Your task to perform on an android device: Open calendar and show me the first week of next month Image 0: 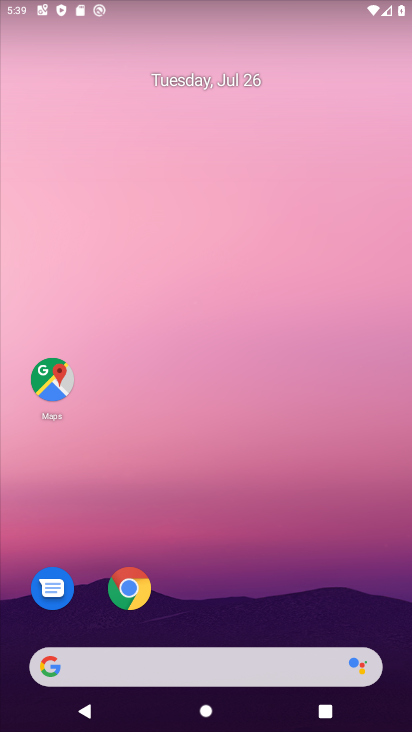
Step 0: drag from (201, 660) to (204, 229)
Your task to perform on an android device: Open calendar and show me the first week of next month Image 1: 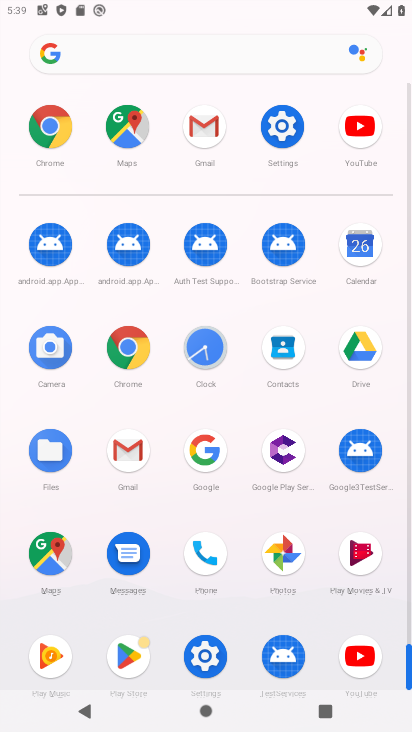
Step 1: click (363, 268)
Your task to perform on an android device: Open calendar and show me the first week of next month Image 2: 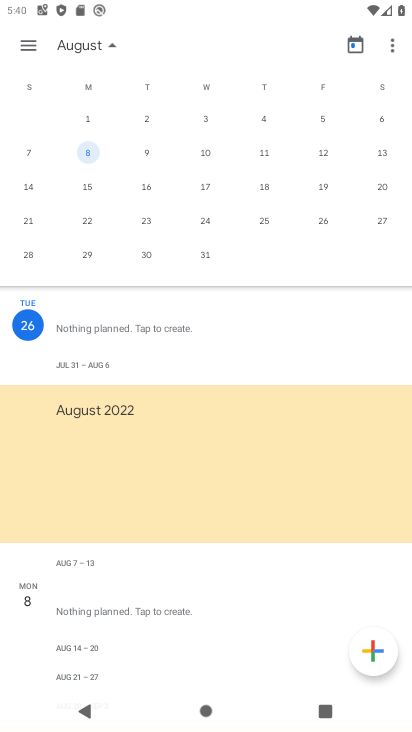
Step 2: drag from (82, 161) to (410, 184)
Your task to perform on an android device: Open calendar and show me the first week of next month Image 3: 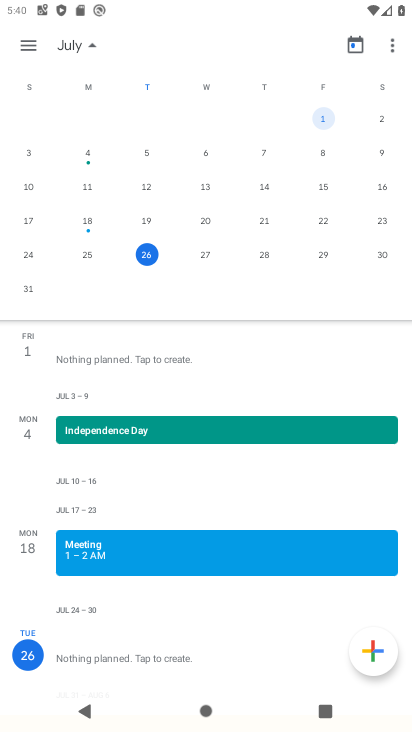
Step 3: drag from (250, 205) to (2, 150)
Your task to perform on an android device: Open calendar and show me the first week of next month Image 4: 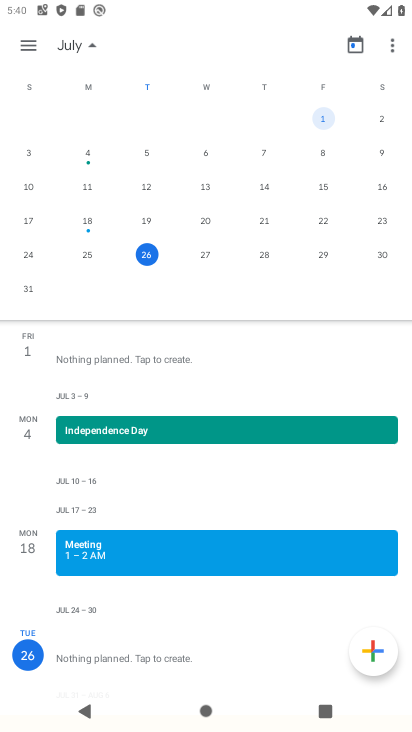
Step 4: click (322, 112)
Your task to perform on an android device: Open calendar and show me the first week of next month Image 5: 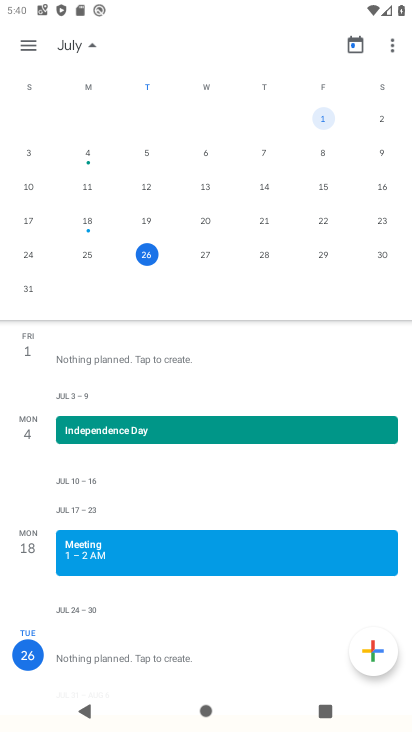
Step 5: task complete